Your task to perform on an android device: turn off data saver in the chrome app Image 0: 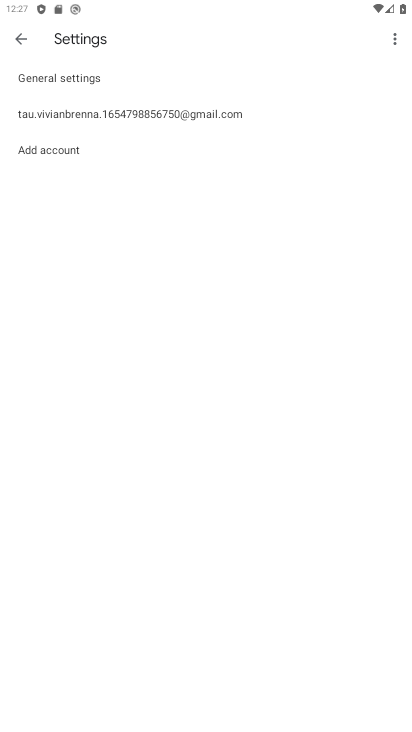
Step 0: press home button
Your task to perform on an android device: turn off data saver in the chrome app Image 1: 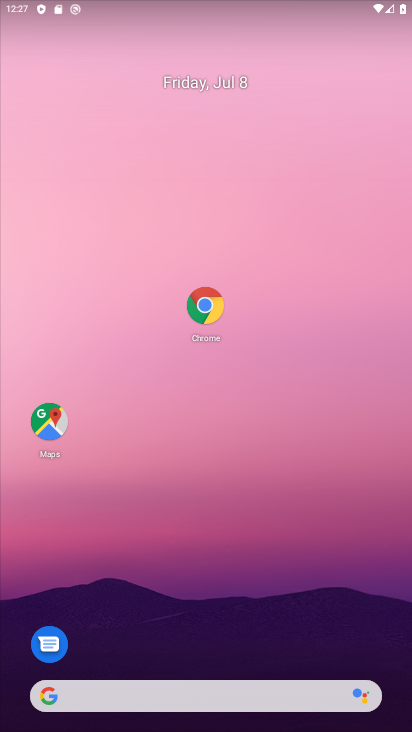
Step 1: drag from (141, 678) to (138, 387)
Your task to perform on an android device: turn off data saver in the chrome app Image 2: 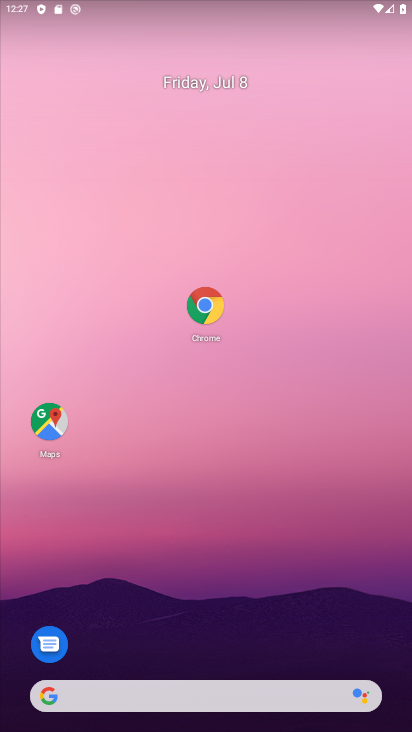
Step 2: click (206, 303)
Your task to perform on an android device: turn off data saver in the chrome app Image 3: 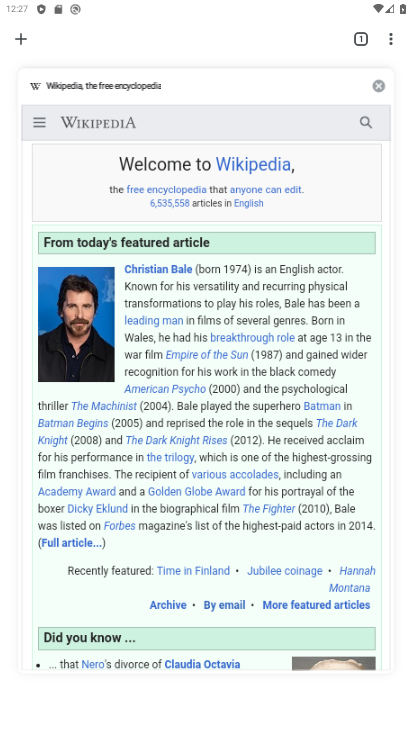
Step 3: click (388, 38)
Your task to perform on an android device: turn off data saver in the chrome app Image 4: 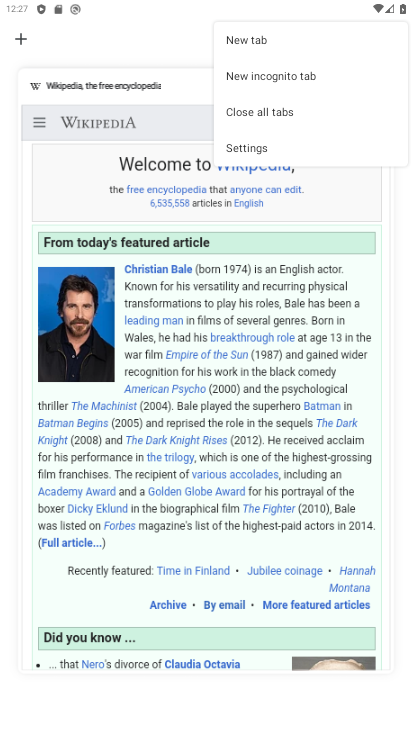
Step 4: click (260, 145)
Your task to perform on an android device: turn off data saver in the chrome app Image 5: 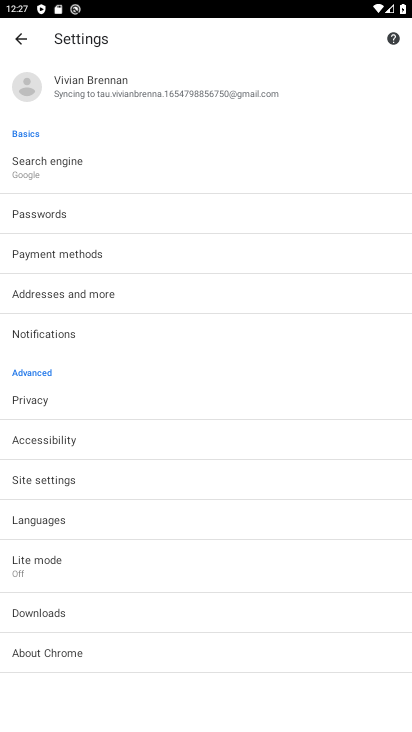
Step 5: click (62, 561)
Your task to perform on an android device: turn off data saver in the chrome app Image 6: 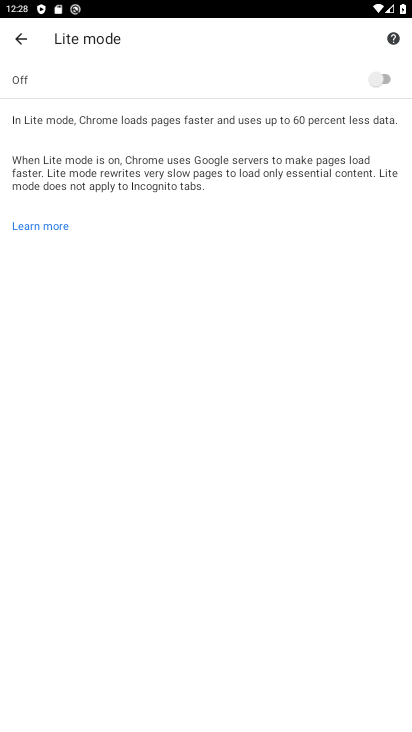
Step 6: task complete